Your task to perform on an android device: Go to network settings Image 0: 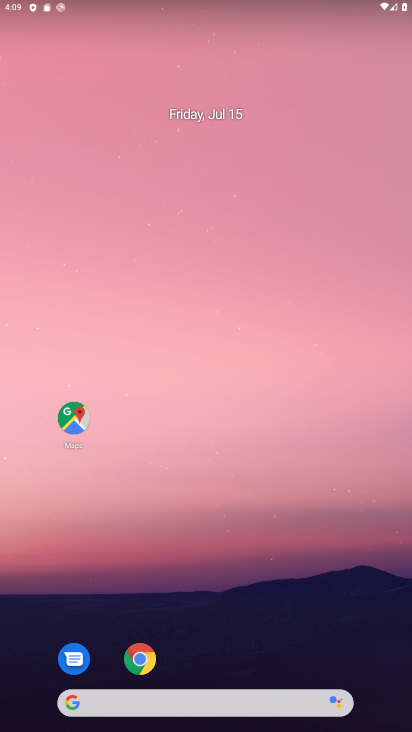
Step 0: drag from (200, 694) to (278, 0)
Your task to perform on an android device: Go to network settings Image 1: 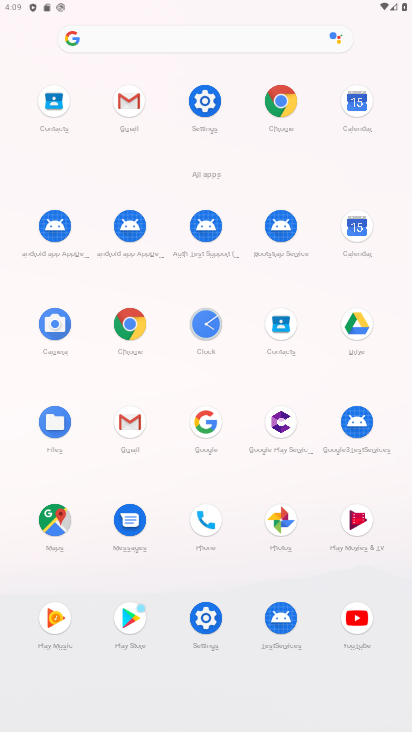
Step 1: click (221, 100)
Your task to perform on an android device: Go to network settings Image 2: 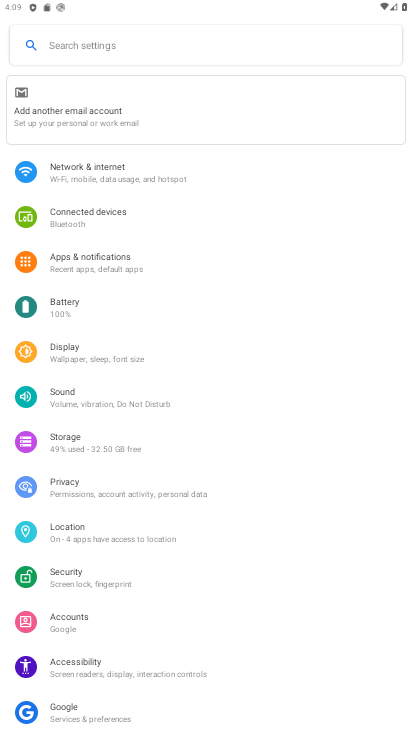
Step 2: click (124, 174)
Your task to perform on an android device: Go to network settings Image 3: 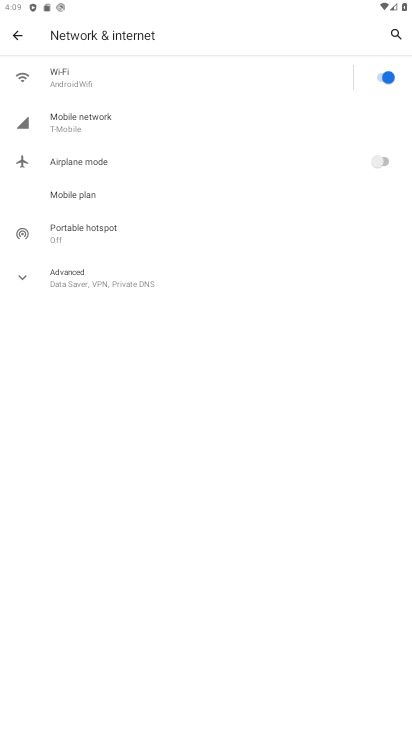
Step 3: click (115, 124)
Your task to perform on an android device: Go to network settings Image 4: 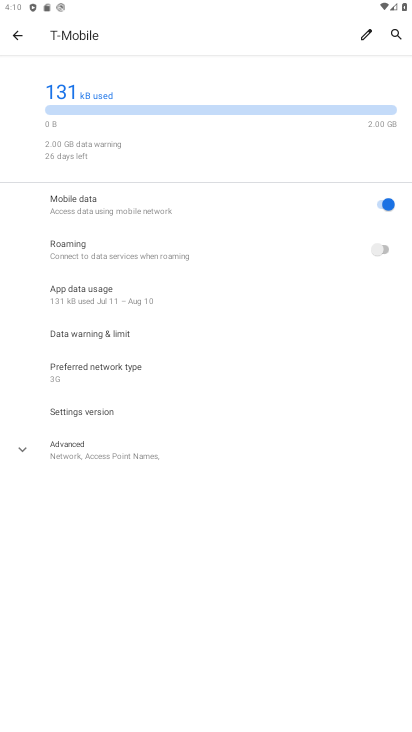
Step 4: task complete